Your task to perform on an android device: What's on my calendar tomorrow? Image 0: 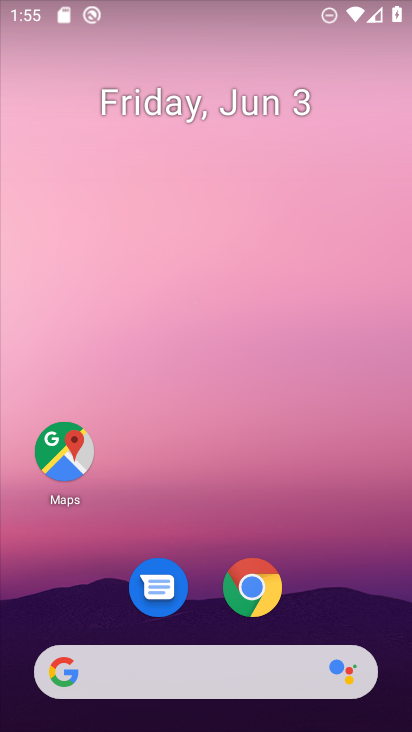
Step 0: drag from (307, 623) to (349, 0)
Your task to perform on an android device: What's on my calendar tomorrow? Image 1: 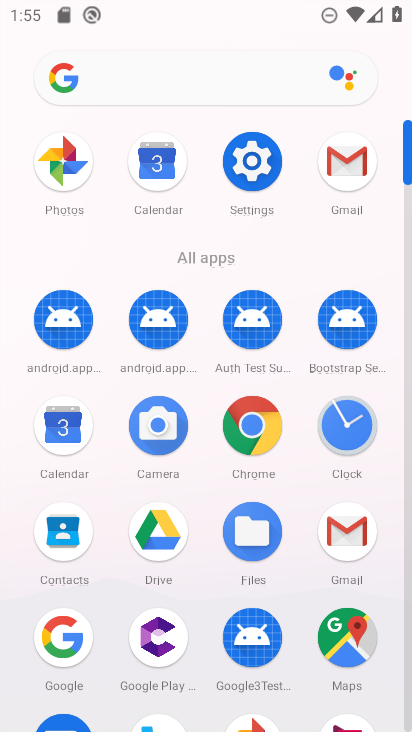
Step 1: click (66, 429)
Your task to perform on an android device: What's on my calendar tomorrow? Image 2: 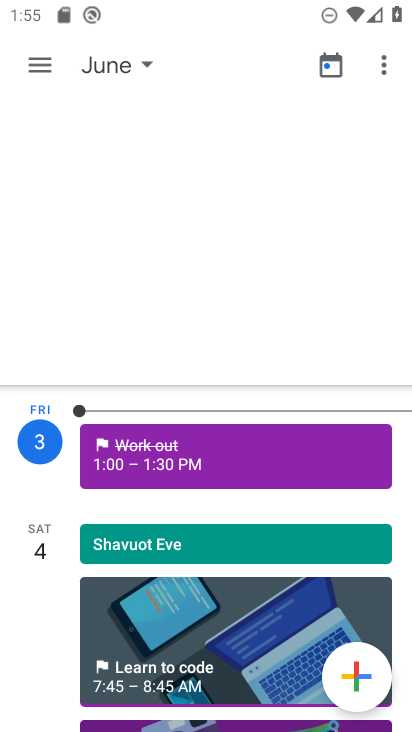
Step 2: click (100, 51)
Your task to perform on an android device: What's on my calendar tomorrow? Image 3: 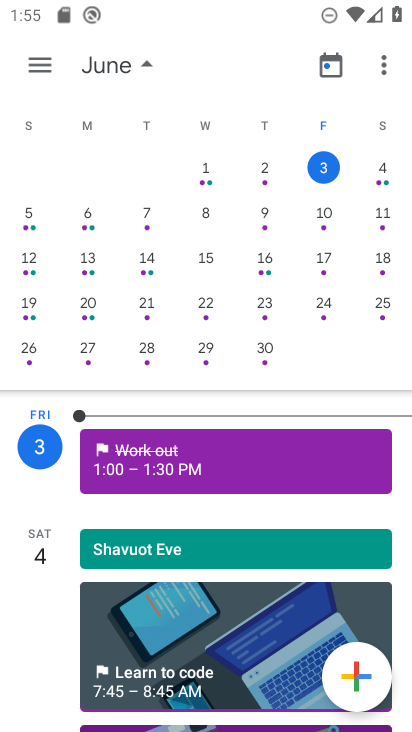
Step 3: click (370, 173)
Your task to perform on an android device: What's on my calendar tomorrow? Image 4: 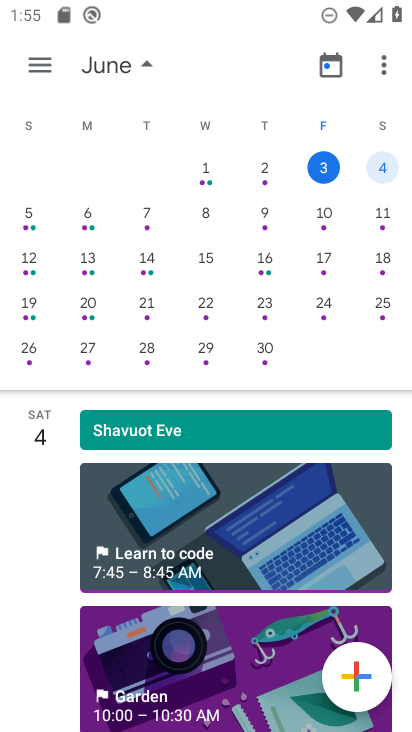
Step 4: task complete